Your task to perform on an android device: change the clock style Image 0: 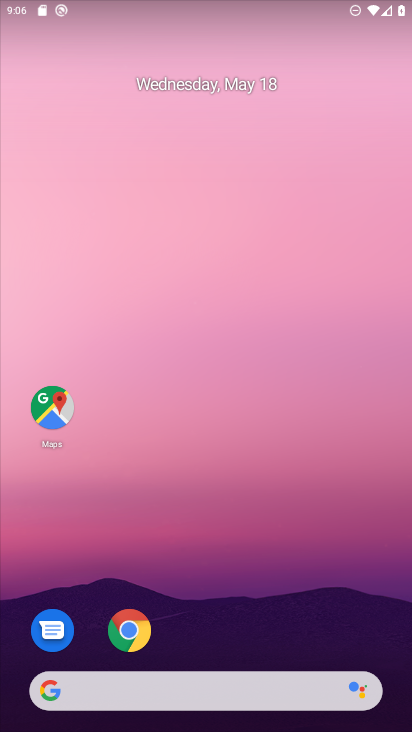
Step 0: drag from (213, 665) to (178, 45)
Your task to perform on an android device: change the clock style Image 1: 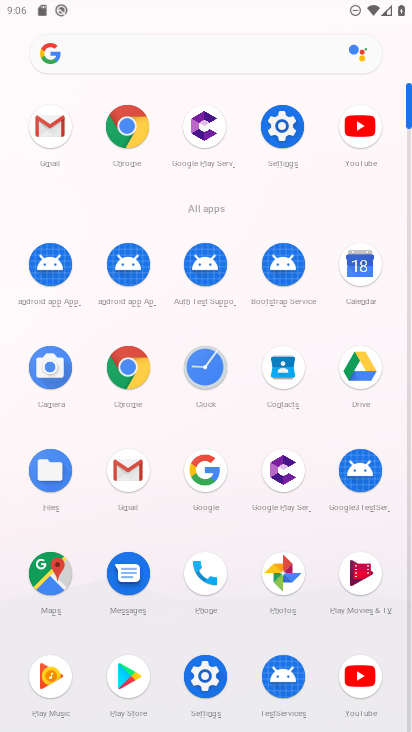
Step 1: click (215, 367)
Your task to perform on an android device: change the clock style Image 2: 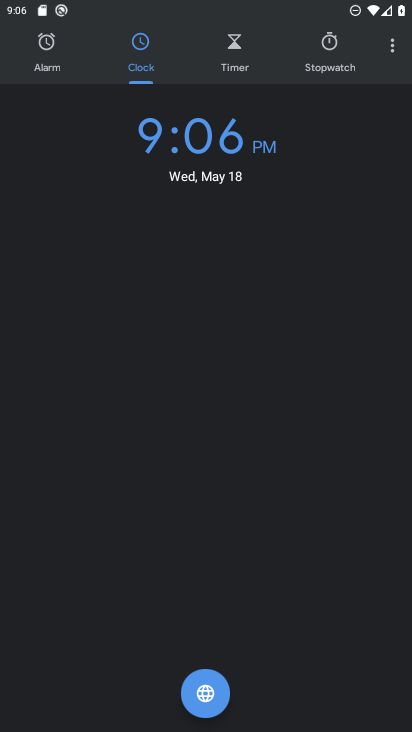
Step 2: click (394, 59)
Your task to perform on an android device: change the clock style Image 3: 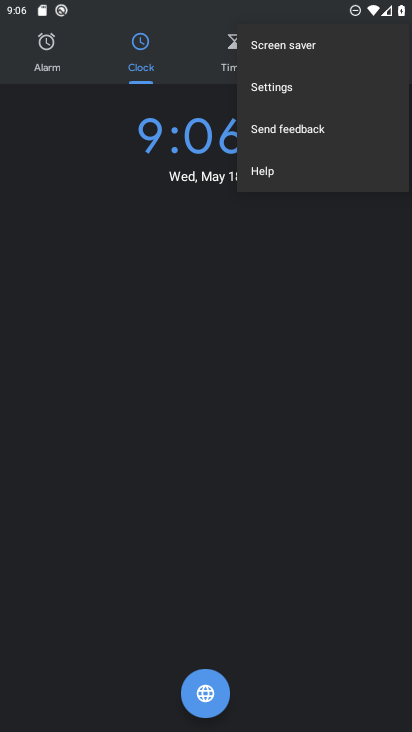
Step 3: click (296, 86)
Your task to perform on an android device: change the clock style Image 4: 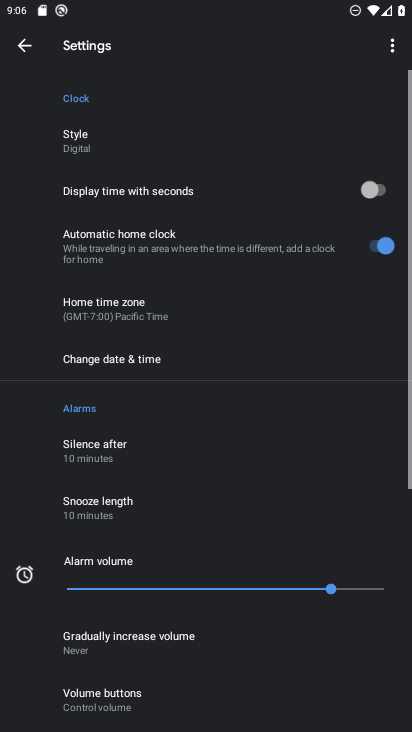
Step 4: click (113, 149)
Your task to perform on an android device: change the clock style Image 5: 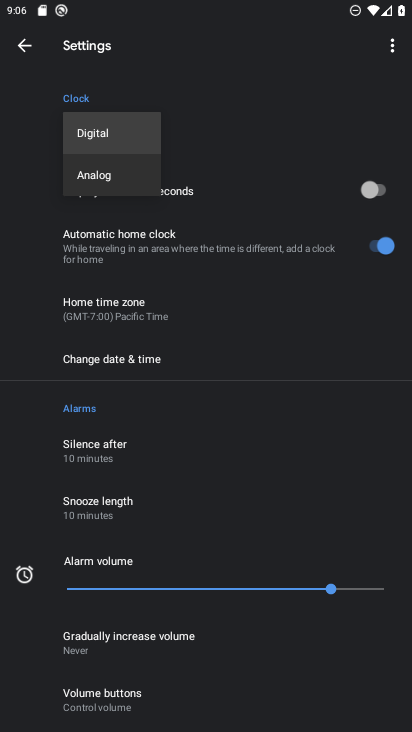
Step 5: click (119, 167)
Your task to perform on an android device: change the clock style Image 6: 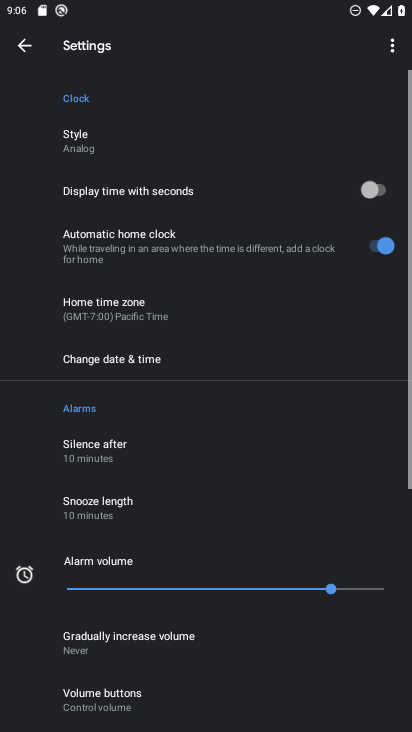
Step 6: task complete